Your task to perform on an android device: Open the calendar and show me this week's events Image 0: 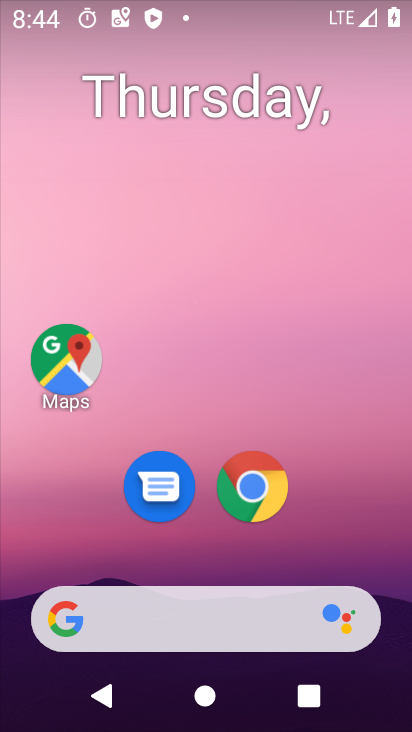
Step 0: drag from (148, 616) to (225, 187)
Your task to perform on an android device: Open the calendar and show me this week's events Image 1: 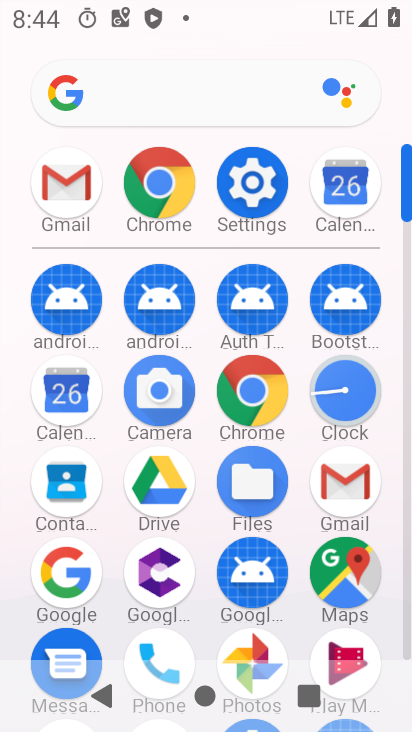
Step 1: click (78, 396)
Your task to perform on an android device: Open the calendar and show me this week's events Image 2: 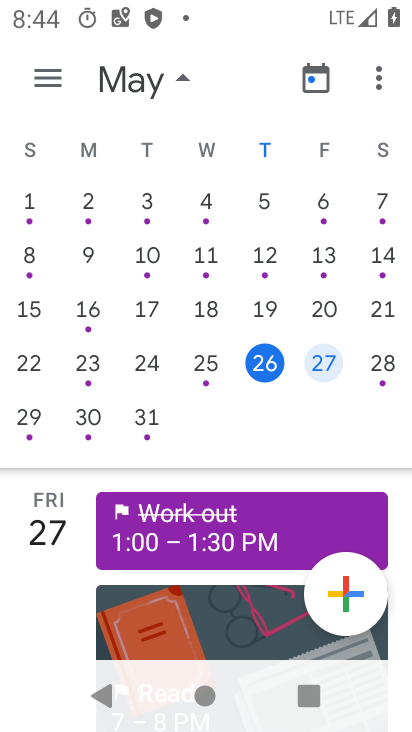
Step 2: task complete